Your task to perform on an android device: Open Chrome and go to settings Image 0: 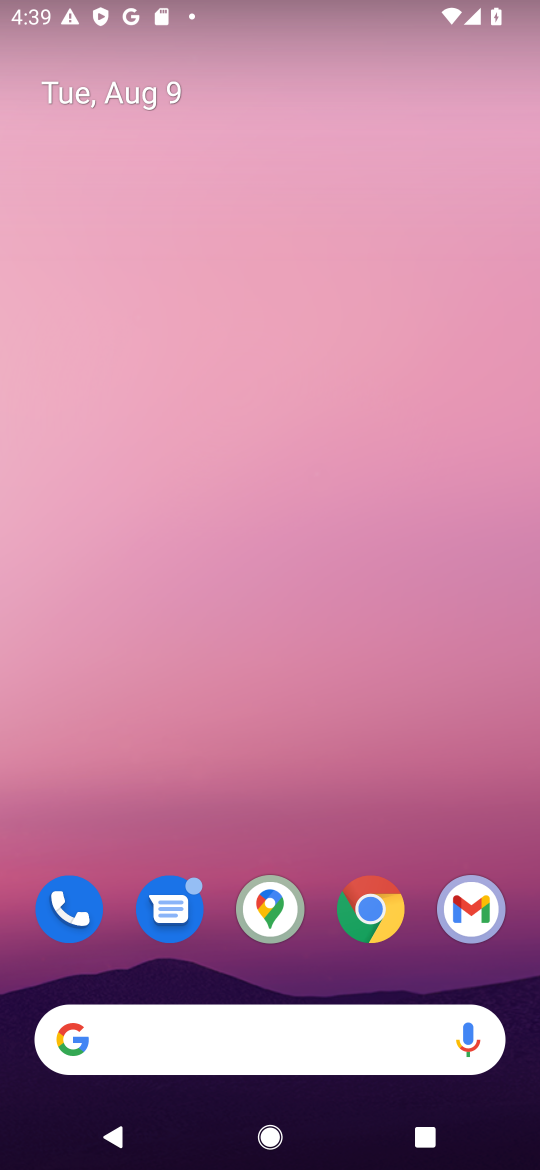
Step 0: click (377, 905)
Your task to perform on an android device: Open Chrome and go to settings Image 1: 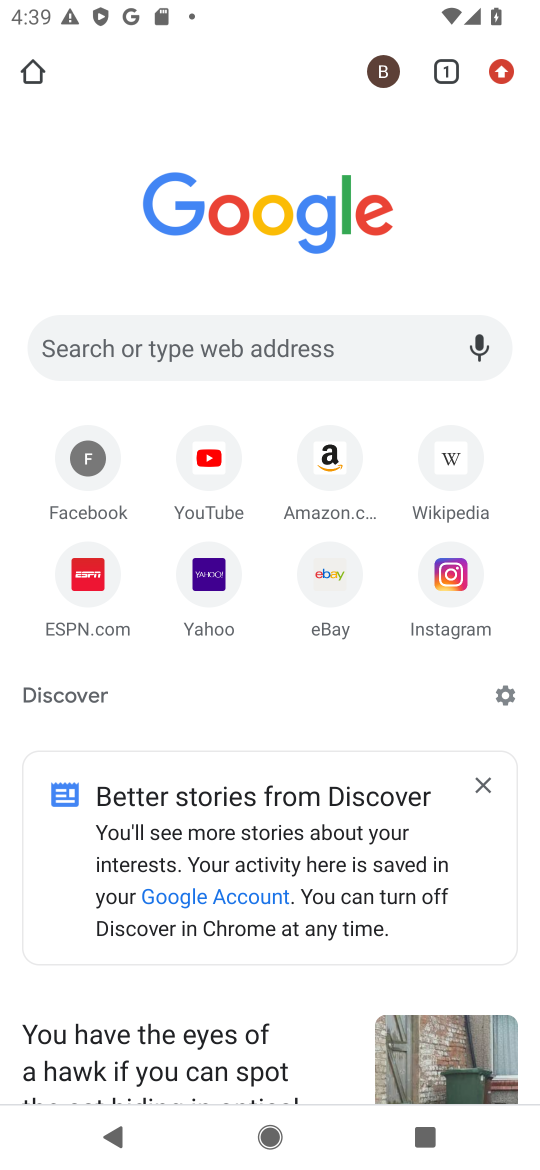
Step 1: click (502, 69)
Your task to perform on an android device: Open Chrome and go to settings Image 2: 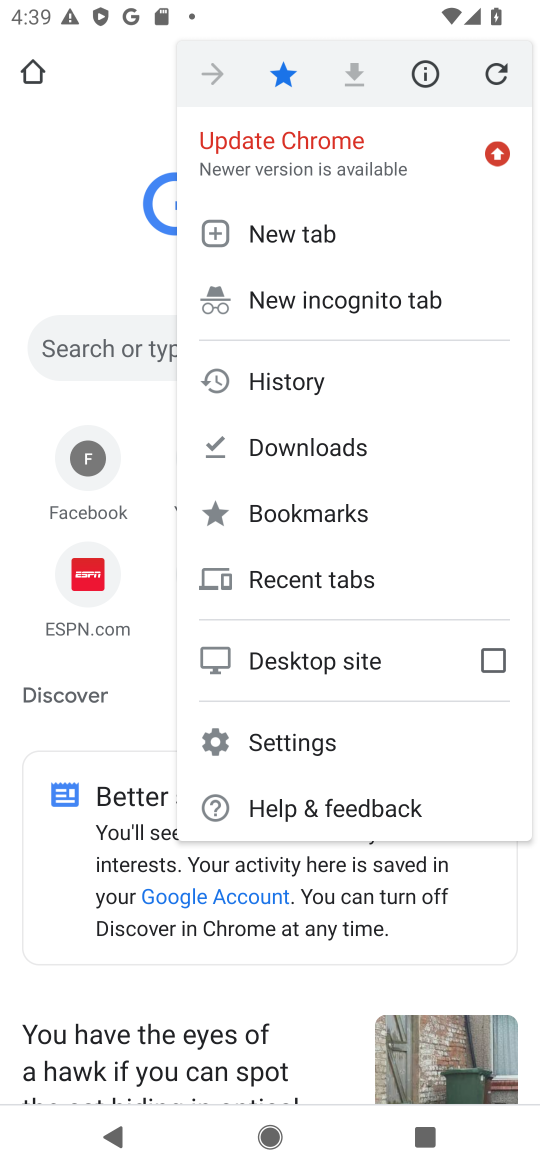
Step 2: click (310, 735)
Your task to perform on an android device: Open Chrome and go to settings Image 3: 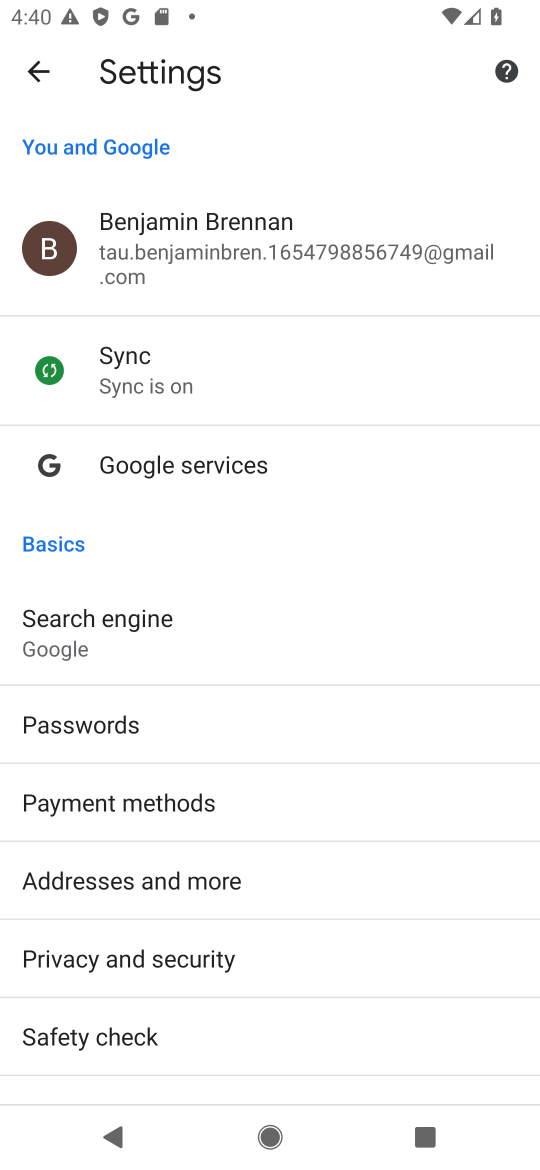
Step 3: task complete